Your task to perform on an android device: Open wifi settings Image 0: 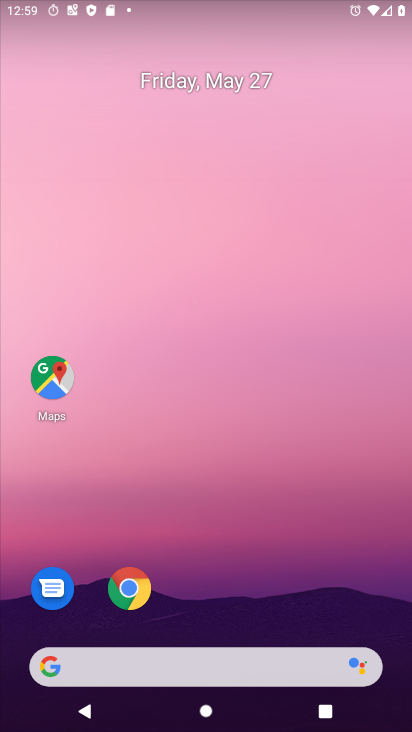
Step 0: drag from (216, 624) to (163, 0)
Your task to perform on an android device: Open wifi settings Image 1: 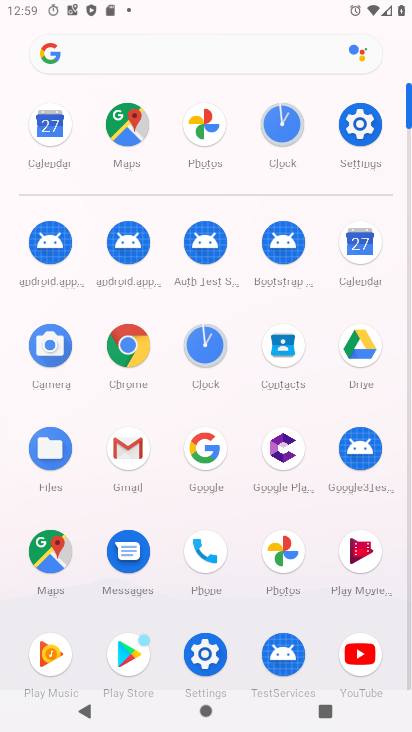
Step 1: click (357, 116)
Your task to perform on an android device: Open wifi settings Image 2: 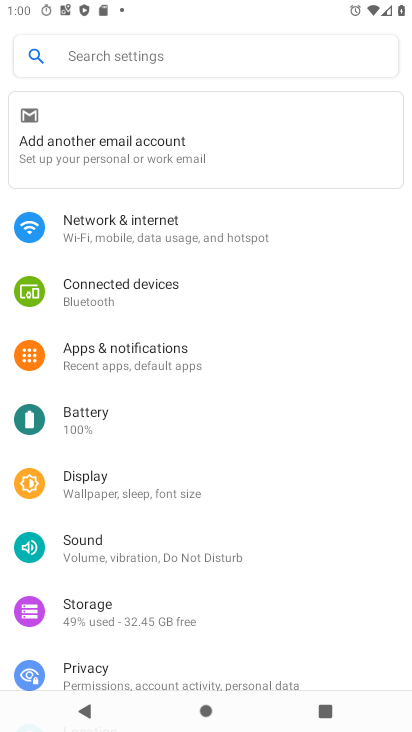
Step 2: click (192, 222)
Your task to perform on an android device: Open wifi settings Image 3: 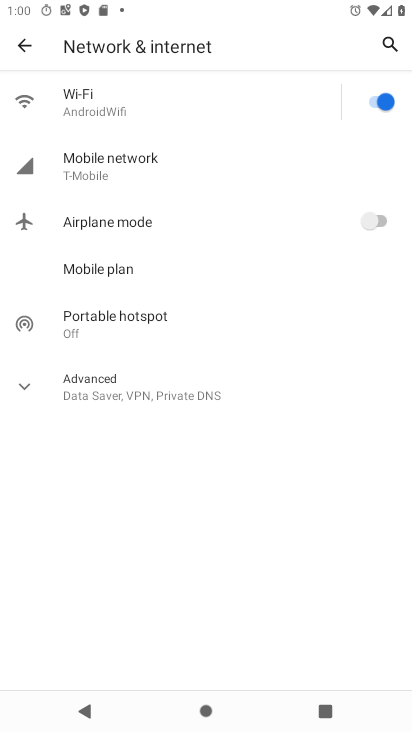
Step 3: click (115, 100)
Your task to perform on an android device: Open wifi settings Image 4: 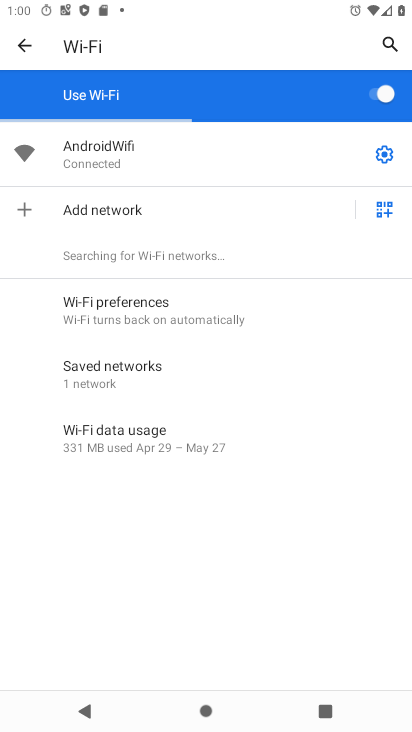
Step 4: task complete